Your task to perform on an android device: Show the shopping cart on walmart. Add "razer blackwidow" to the cart on walmart Image 0: 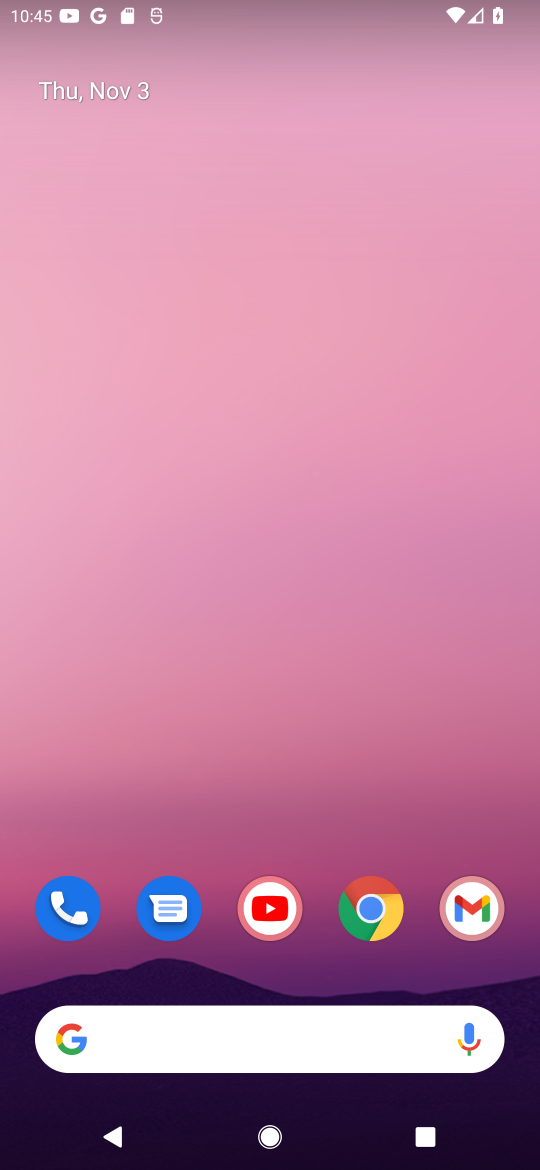
Step 0: click (385, 911)
Your task to perform on an android device: Show the shopping cart on walmart. Add "razer blackwidow" to the cart on walmart Image 1: 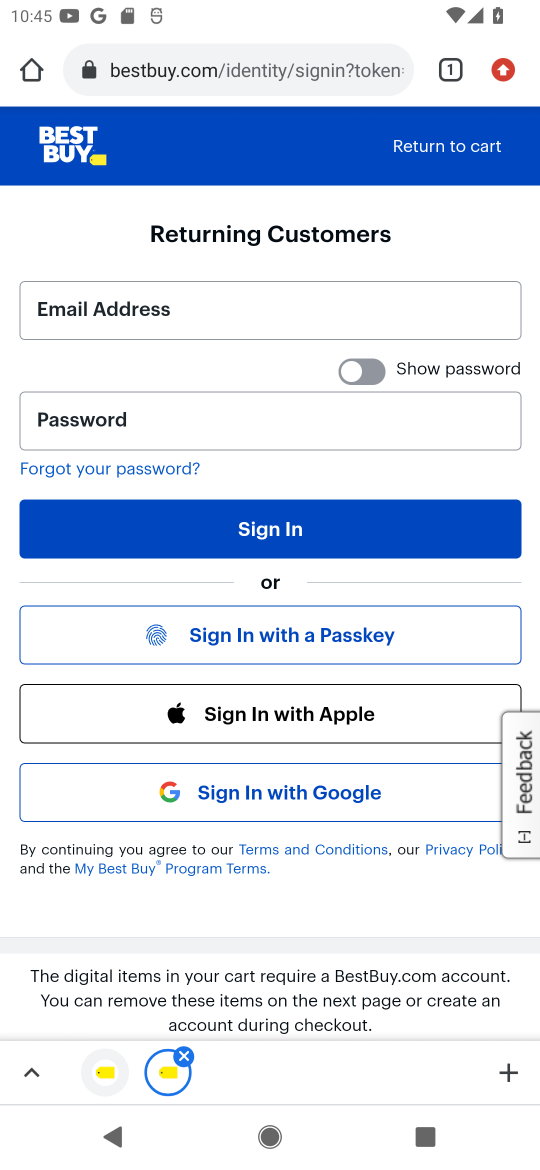
Step 1: click (274, 67)
Your task to perform on an android device: Show the shopping cart on walmart. Add "razer blackwidow" to the cart on walmart Image 2: 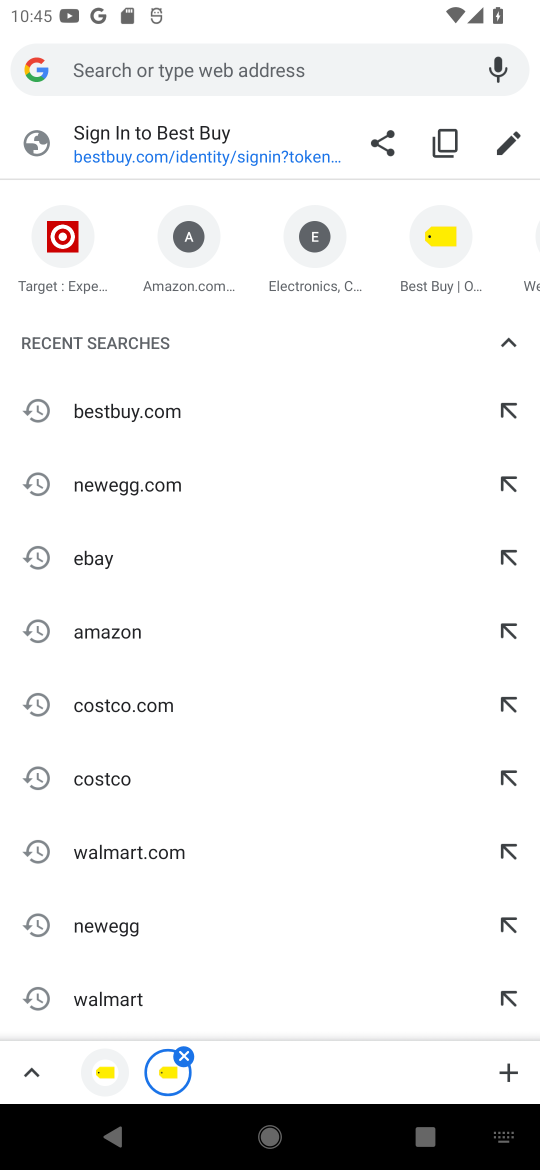
Step 2: click (158, 844)
Your task to perform on an android device: Show the shopping cart on walmart. Add "razer blackwidow" to the cart on walmart Image 3: 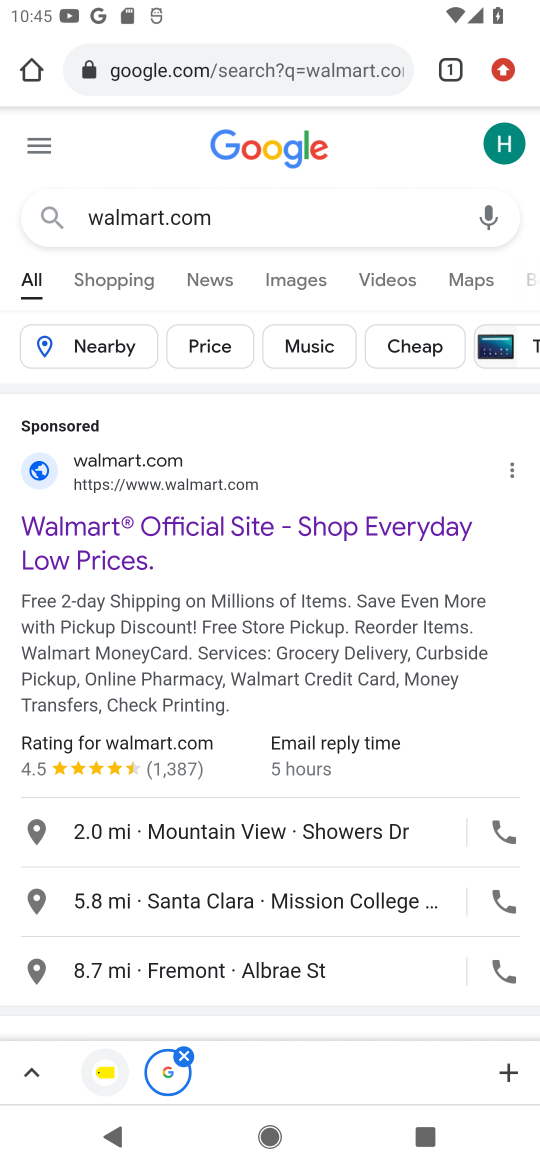
Step 3: click (192, 483)
Your task to perform on an android device: Show the shopping cart on walmart. Add "razer blackwidow" to the cart on walmart Image 4: 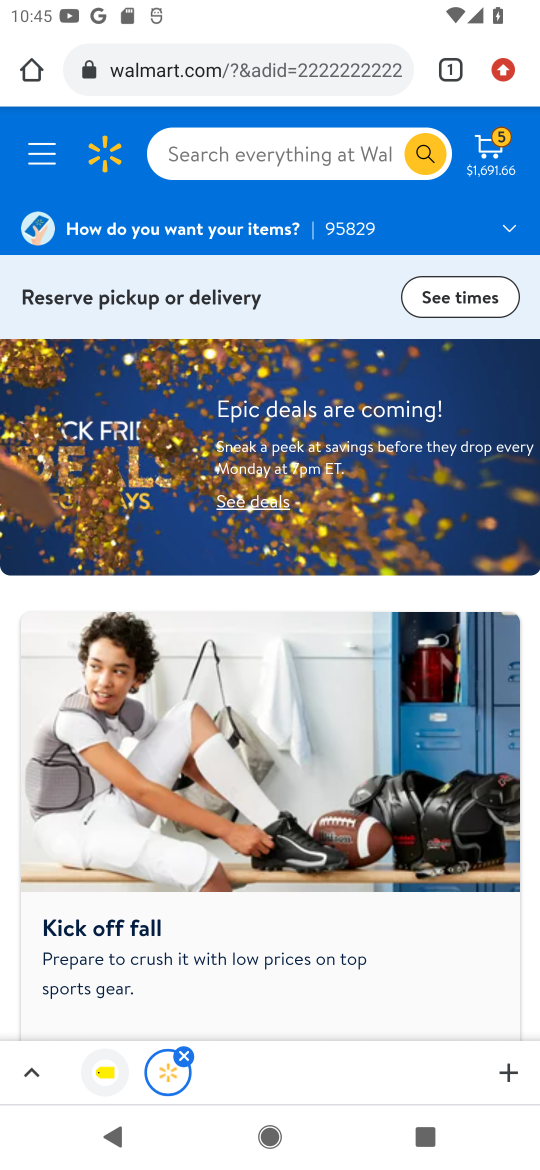
Step 4: click (496, 158)
Your task to perform on an android device: Show the shopping cart on walmart. Add "razer blackwidow" to the cart on walmart Image 5: 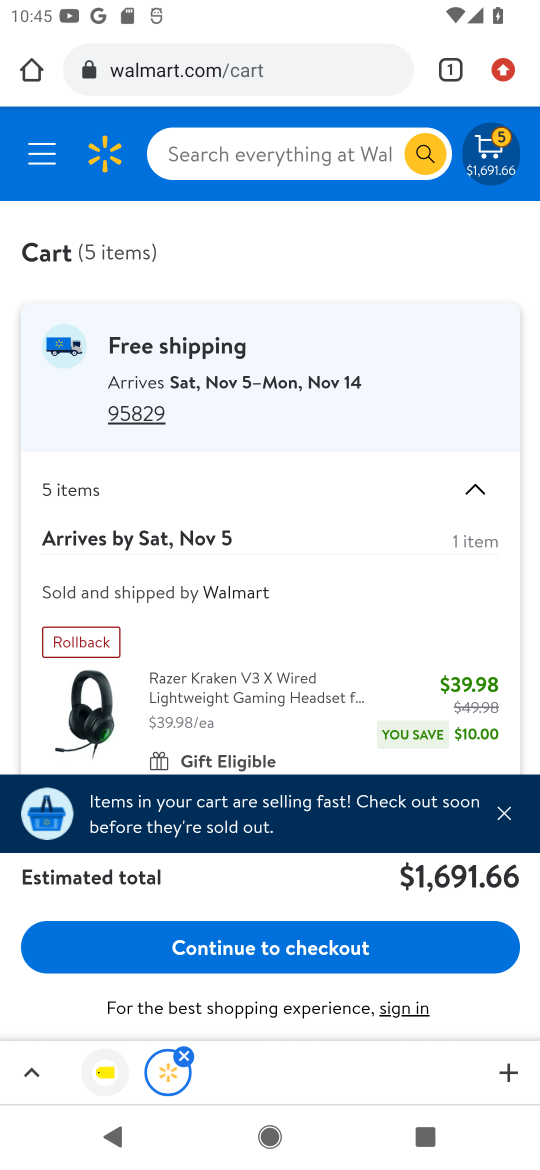
Step 5: click (328, 158)
Your task to perform on an android device: Show the shopping cart on walmart. Add "razer blackwidow" to the cart on walmart Image 6: 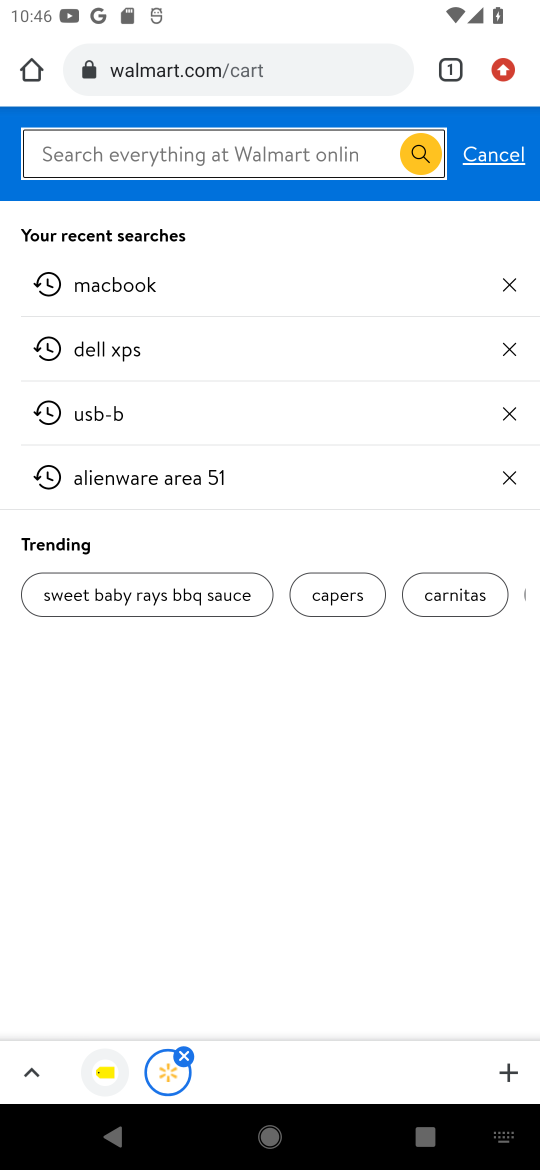
Step 6: type "razer blackwidow"
Your task to perform on an android device: Show the shopping cart on walmart. Add "razer blackwidow" to the cart on walmart Image 7: 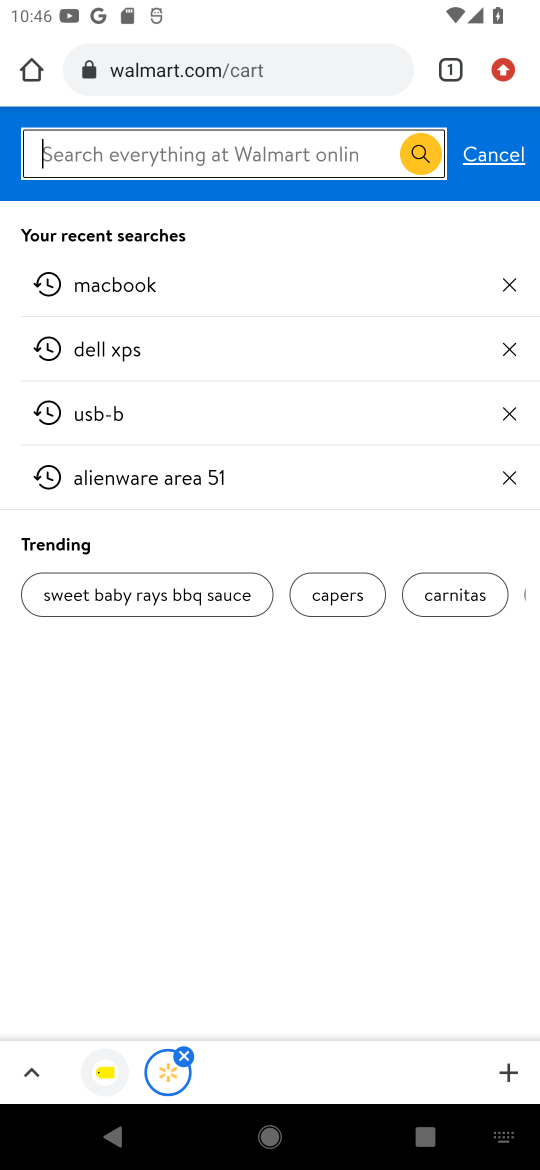
Step 7: press enter
Your task to perform on an android device: Show the shopping cart on walmart. Add "razer blackwidow" to the cart on walmart Image 8: 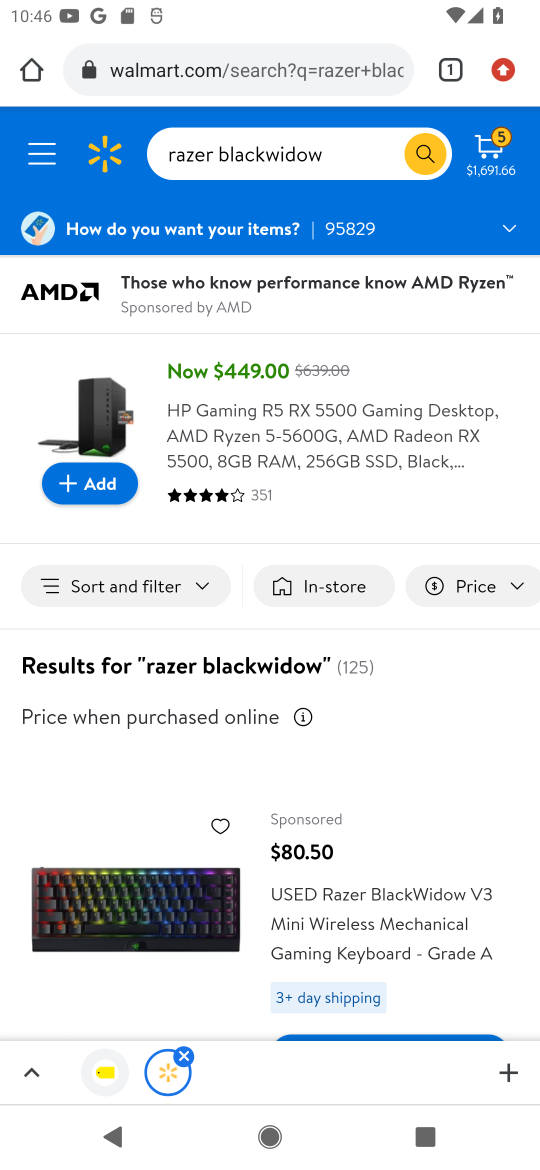
Step 8: click (127, 908)
Your task to perform on an android device: Show the shopping cart on walmart. Add "razer blackwidow" to the cart on walmart Image 9: 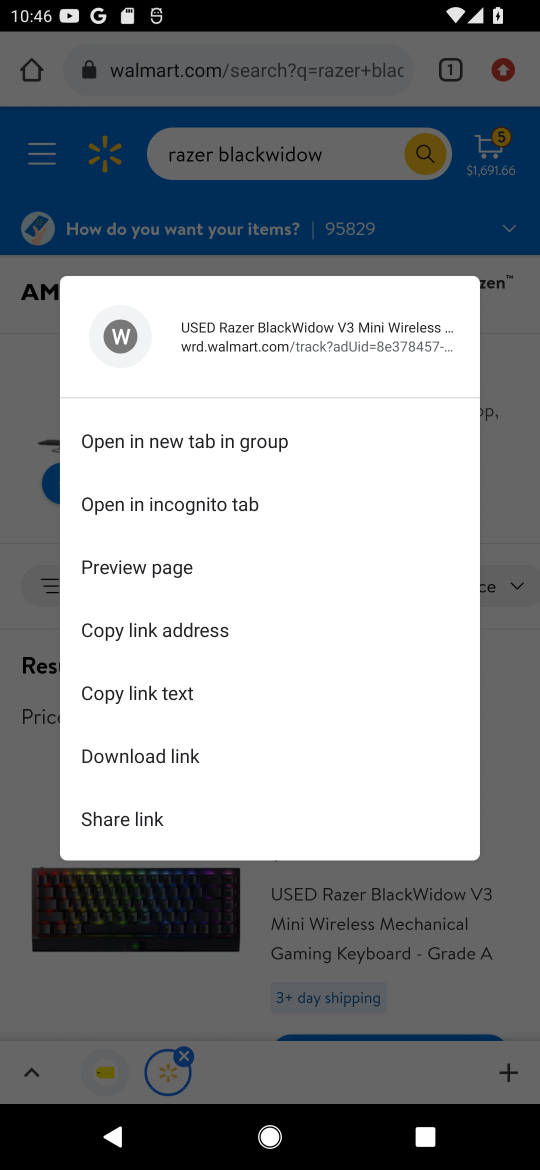
Step 9: click (216, 916)
Your task to perform on an android device: Show the shopping cart on walmart. Add "razer blackwidow" to the cart on walmart Image 10: 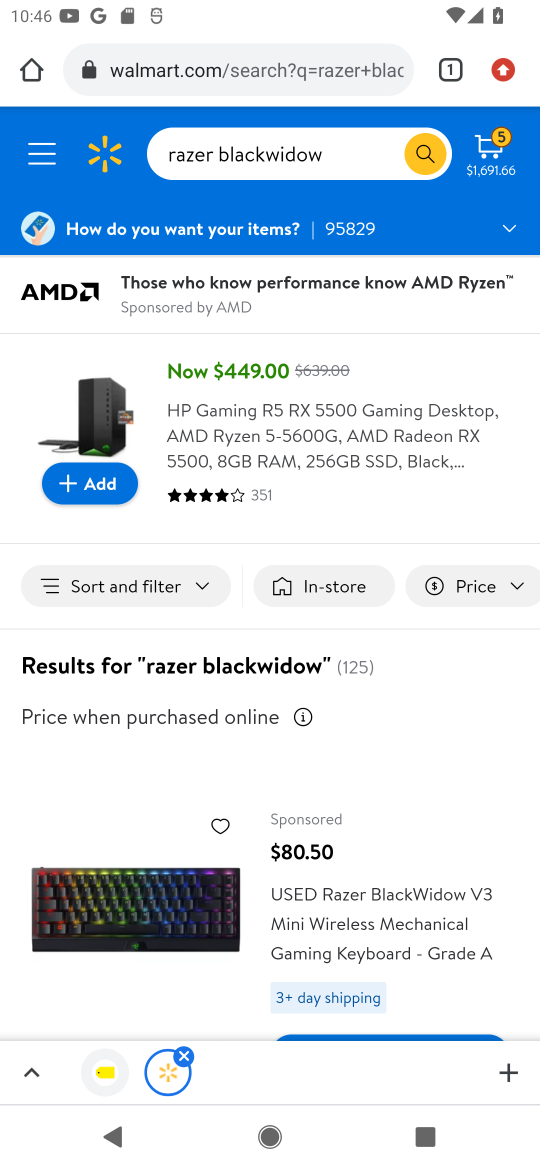
Step 10: click (215, 917)
Your task to perform on an android device: Show the shopping cart on walmart. Add "razer blackwidow" to the cart on walmart Image 11: 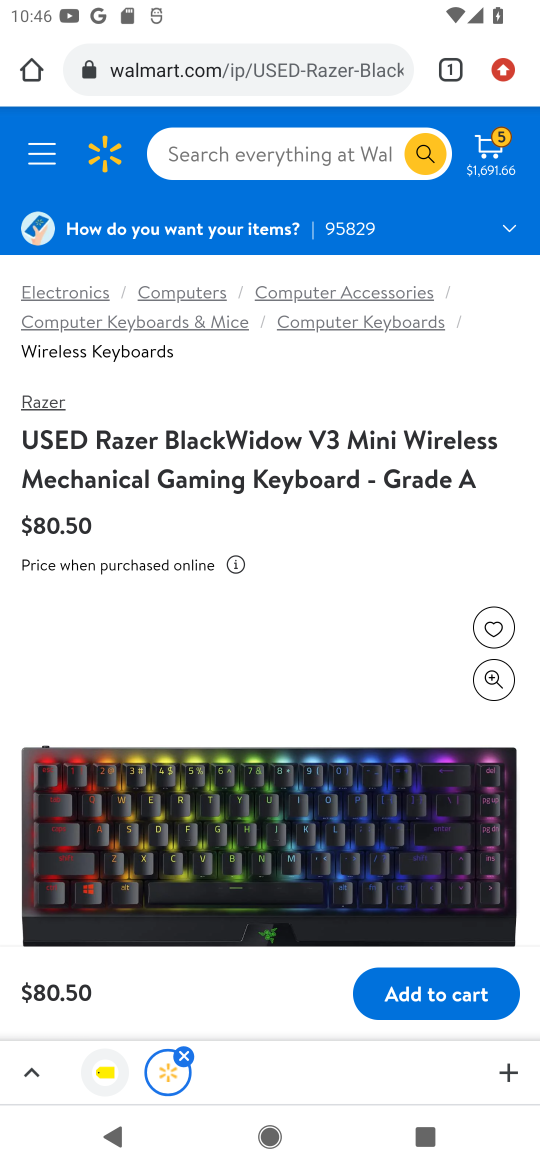
Step 11: drag from (276, 843) to (391, 326)
Your task to perform on an android device: Show the shopping cart on walmart. Add "razer blackwidow" to the cart on walmart Image 12: 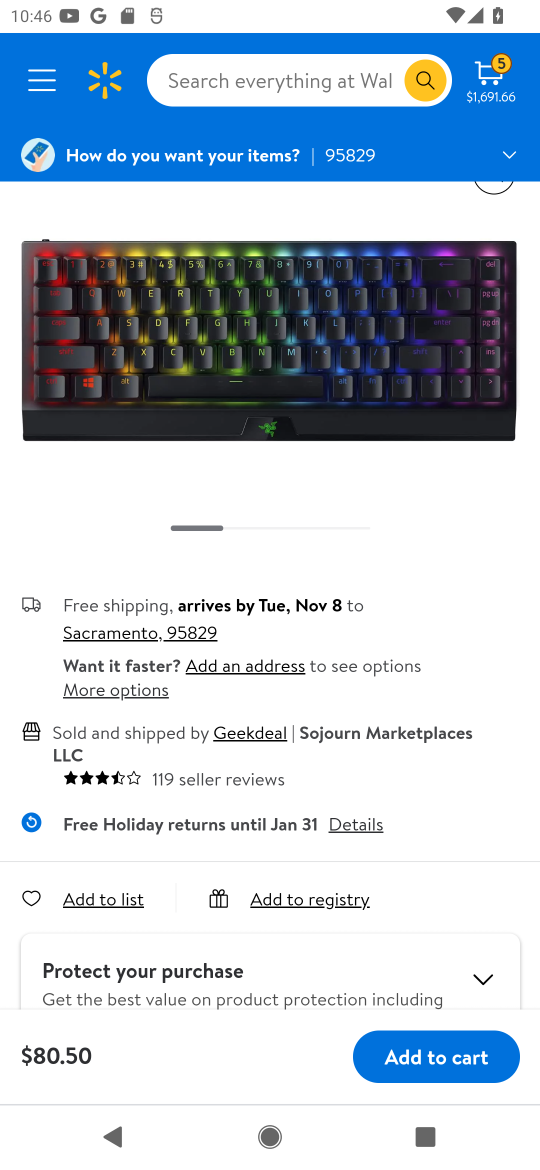
Step 12: drag from (407, 860) to (439, 381)
Your task to perform on an android device: Show the shopping cart on walmart. Add "razer blackwidow" to the cart on walmart Image 13: 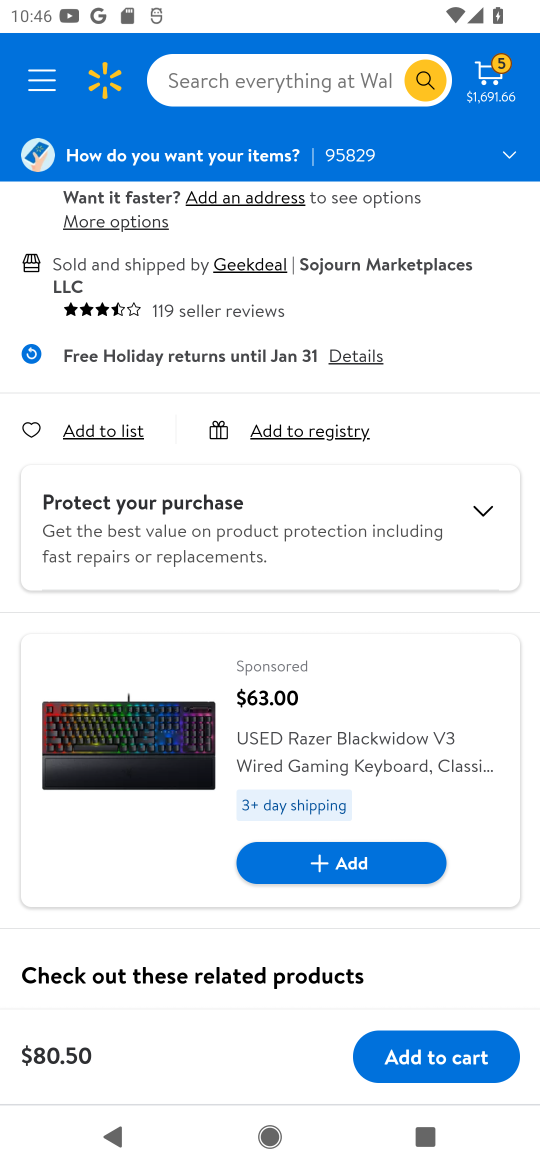
Step 13: click (446, 1047)
Your task to perform on an android device: Show the shopping cart on walmart. Add "razer blackwidow" to the cart on walmart Image 14: 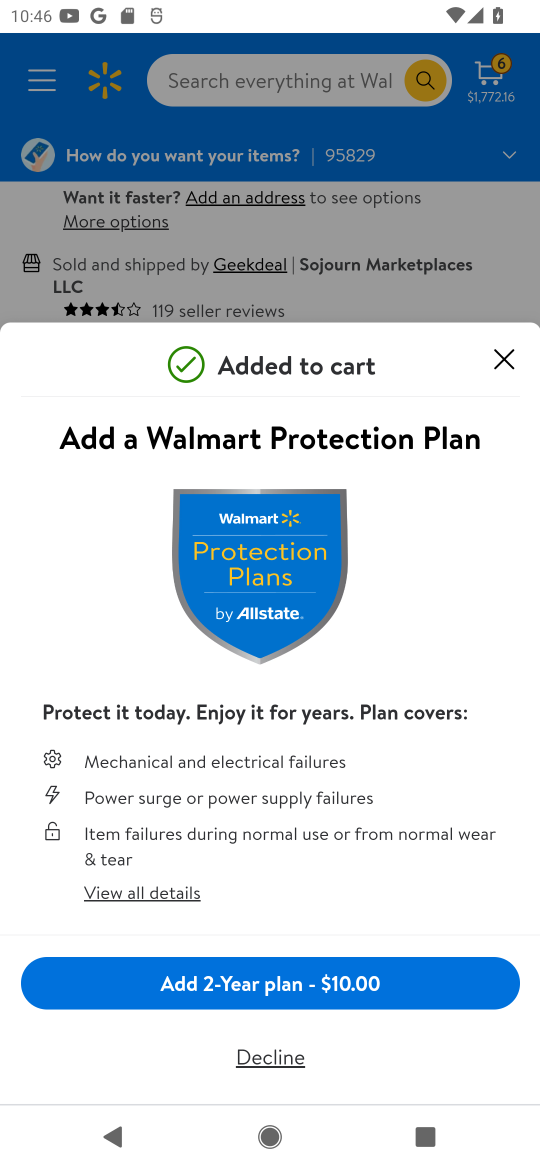
Step 14: click (519, 353)
Your task to perform on an android device: Show the shopping cart on walmart. Add "razer blackwidow" to the cart on walmart Image 15: 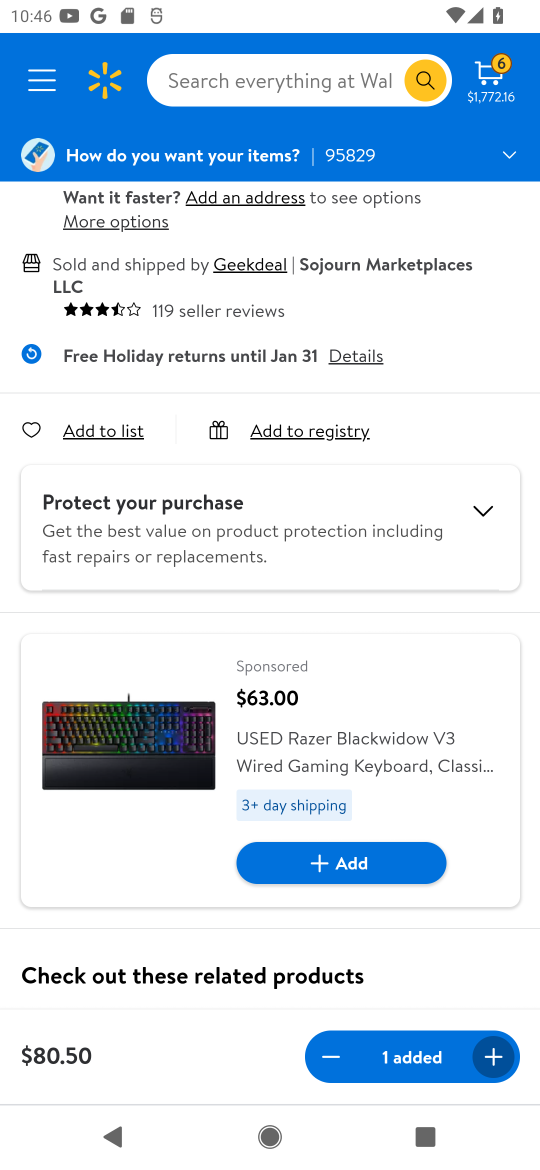
Step 15: task complete